Your task to perform on an android device: Open calendar and show me the fourth week of next month Image 0: 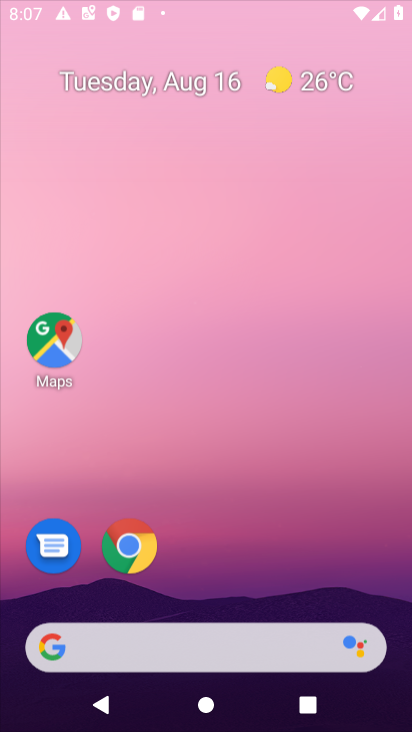
Step 0: click (222, 540)
Your task to perform on an android device: Open calendar and show me the fourth week of next month Image 1: 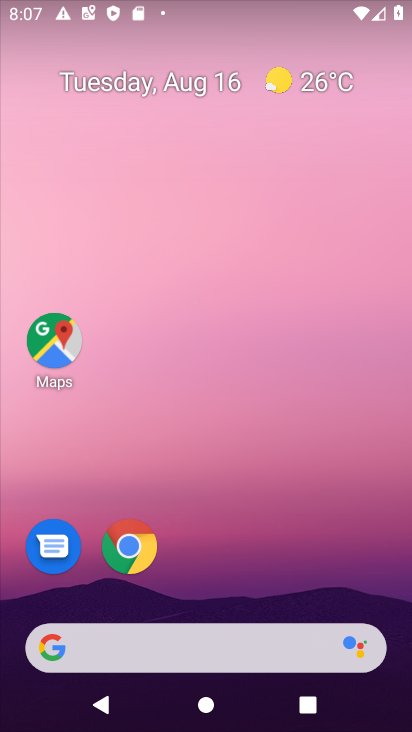
Step 1: drag from (223, 550) to (233, 14)
Your task to perform on an android device: Open calendar and show me the fourth week of next month Image 2: 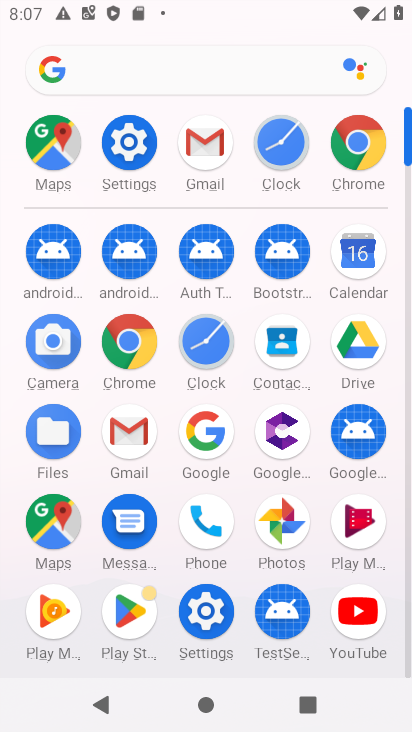
Step 2: click (362, 253)
Your task to perform on an android device: Open calendar and show me the fourth week of next month Image 3: 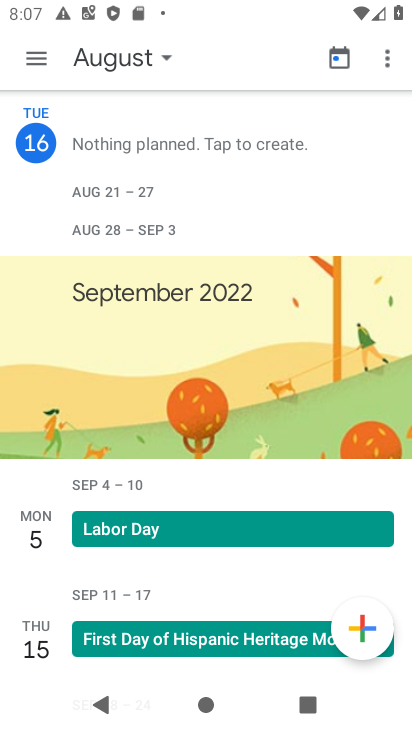
Step 3: click (41, 59)
Your task to perform on an android device: Open calendar and show me the fourth week of next month Image 4: 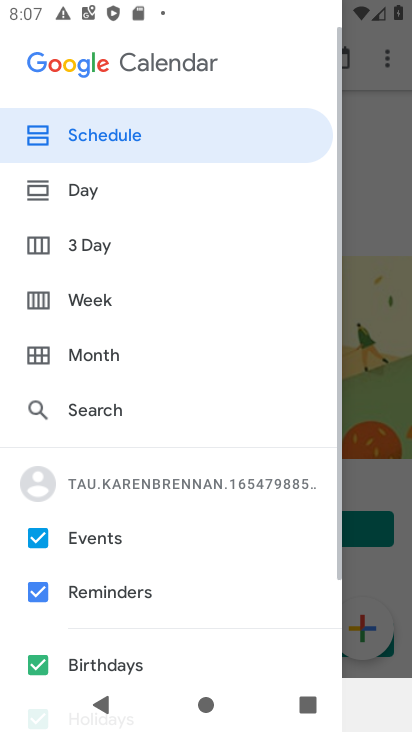
Step 4: click (94, 348)
Your task to perform on an android device: Open calendar and show me the fourth week of next month Image 5: 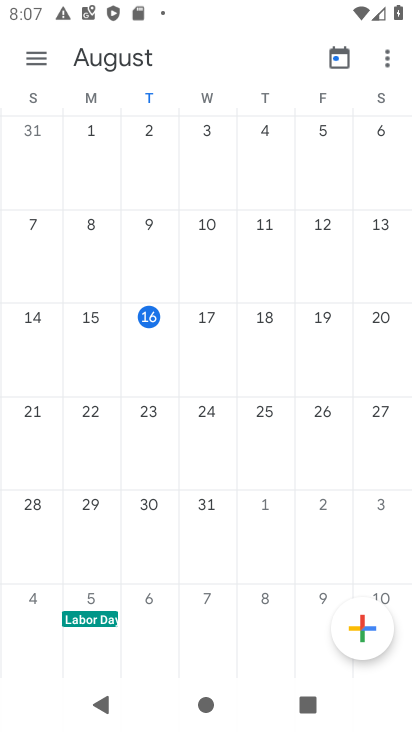
Step 5: drag from (389, 362) to (1, 378)
Your task to perform on an android device: Open calendar and show me the fourth week of next month Image 6: 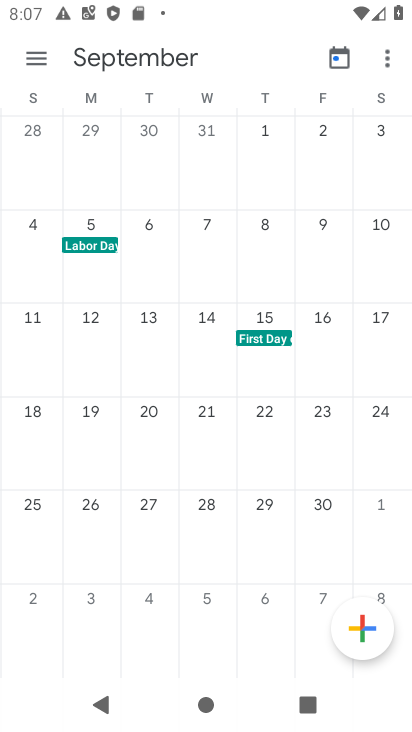
Step 6: click (33, 501)
Your task to perform on an android device: Open calendar and show me the fourth week of next month Image 7: 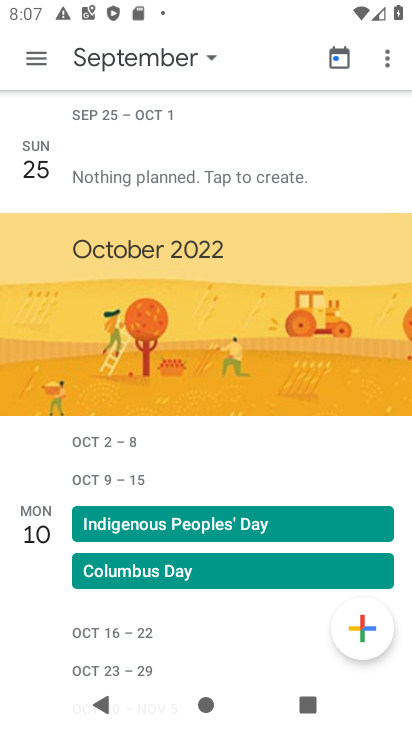
Step 7: click (32, 52)
Your task to perform on an android device: Open calendar and show me the fourth week of next month Image 8: 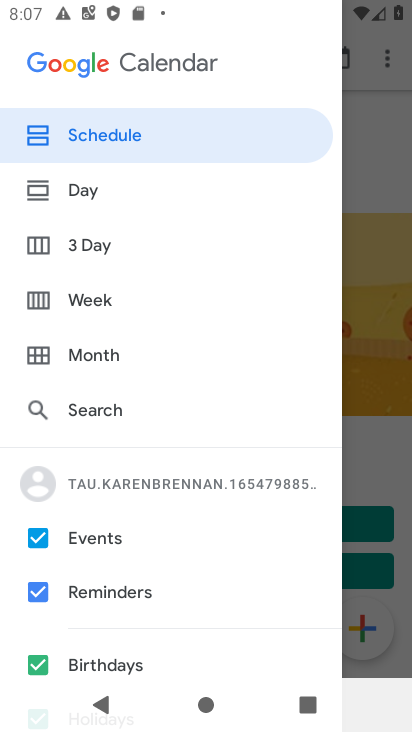
Step 8: click (38, 302)
Your task to perform on an android device: Open calendar and show me the fourth week of next month Image 9: 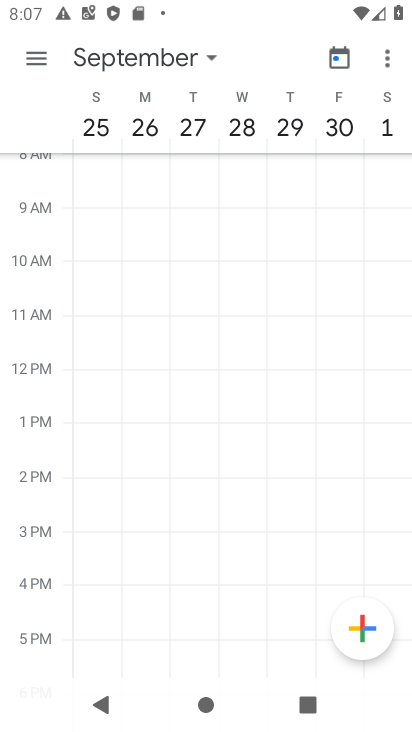
Step 9: task complete